Your task to perform on an android device: add a contact Image 0: 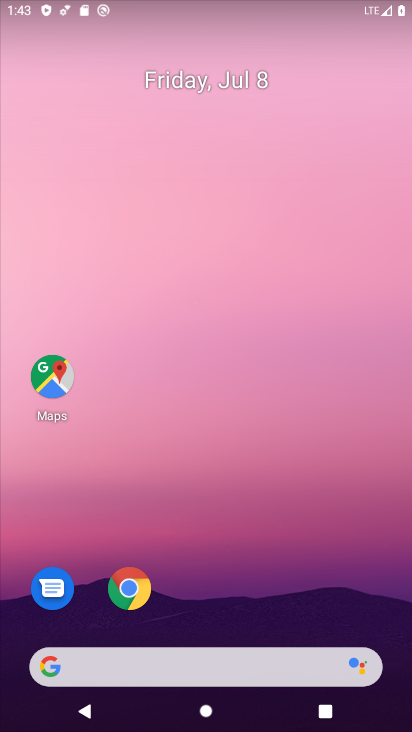
Step 0: drag from (224, 617) to (288, 275)
Your task to perform on an android device: add a contact Image 1: 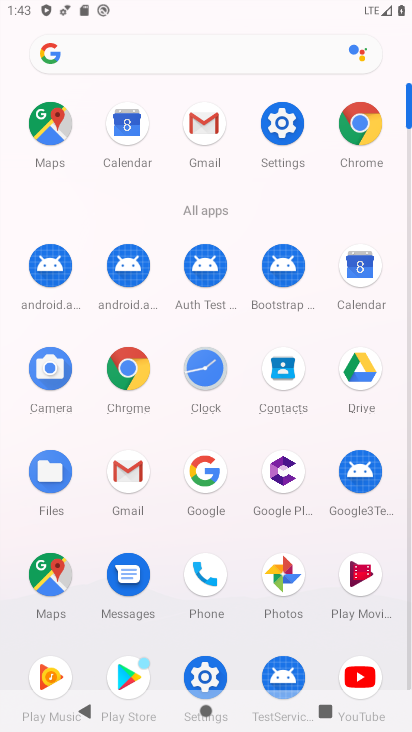
Step 1: click (280, 371)
Your task to perform on an android device: add a contact Image 2: 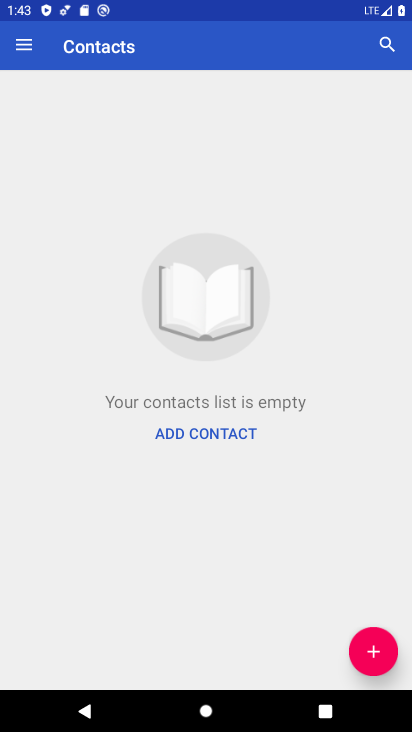
Step 2: click (368, 656)
Your task to perform on an android device: add a contact Image 3: 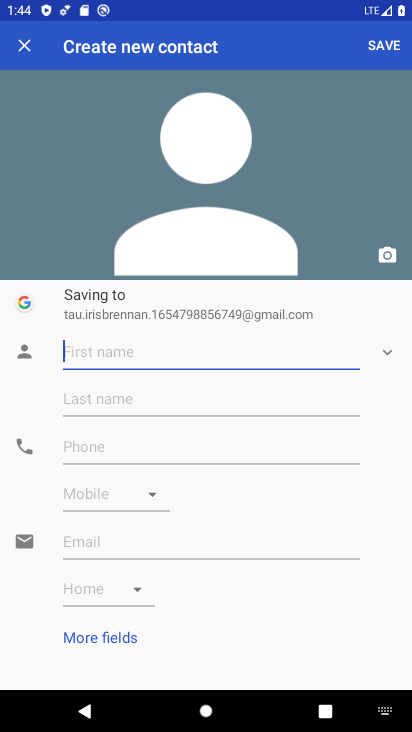
Step 3: type "sdfdfdfd"
Your task to perform on an android device: add a contact Image 4: 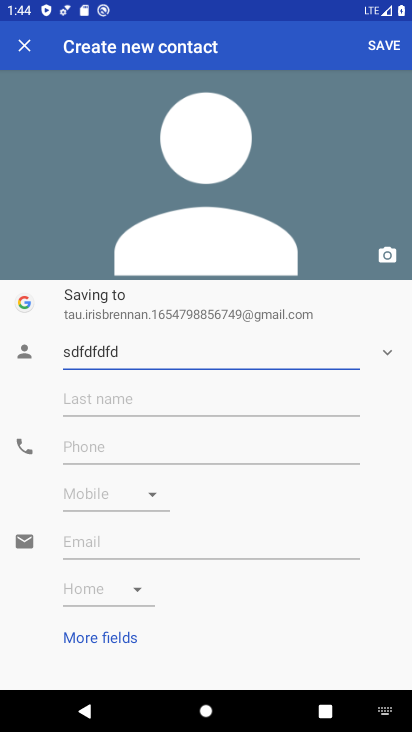
Step 4: click (129, 444)
Your task to perform on an android device: add a contact Image 5: 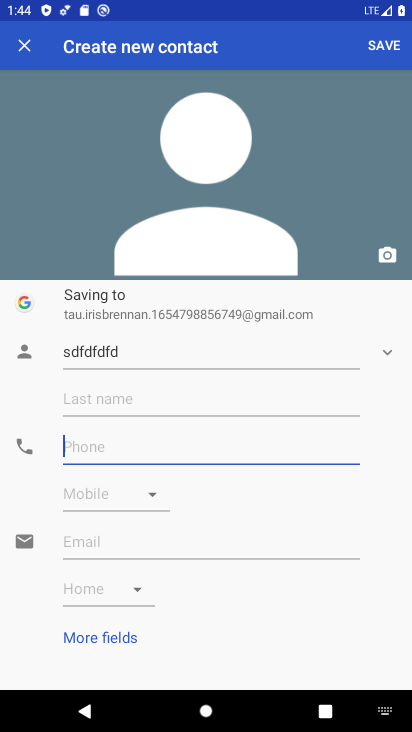
Step 5: type "54545454"
Your task to perform on an android device: add a contact Image 6: 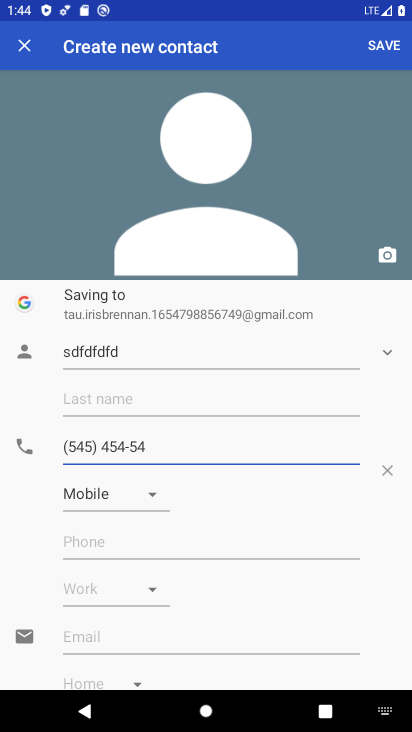
Step 6: click (376, 48)
Your task to perform on an android device: add a contact Image 7: 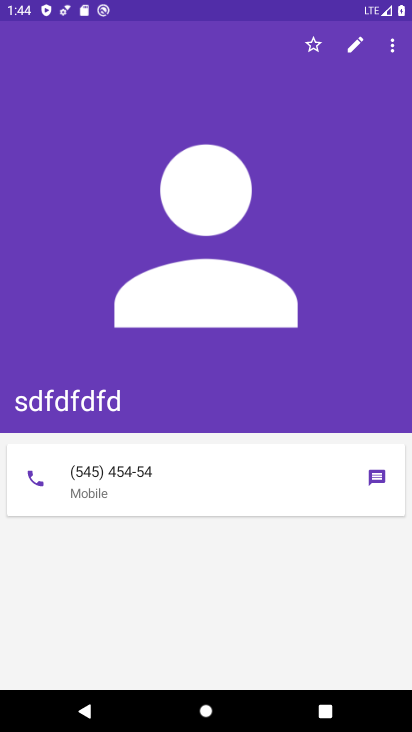
Step 7: task complete